Your task to perform on an android device: Open the web browser Image 0: 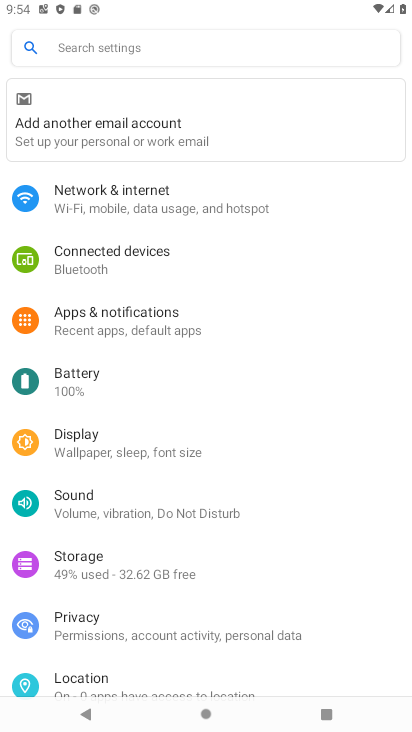
Step 0: press home button
Your task to perform on an android device: Open the web browser Image 1: 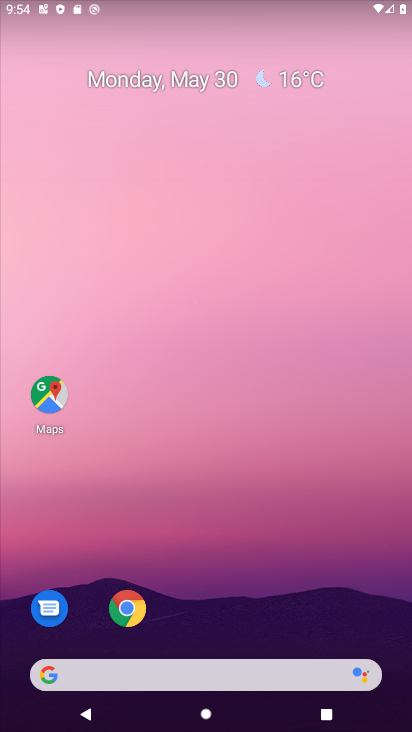
Step 1: click (126, 596)
Your task to perform on an android device: Open the web browser Image 2: 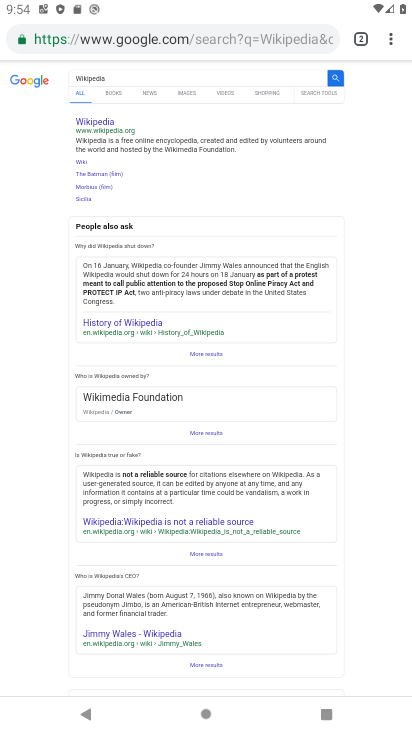
Step 2: task complete